Your task to perform on an android device: turn off notifications in google photos Image 0: 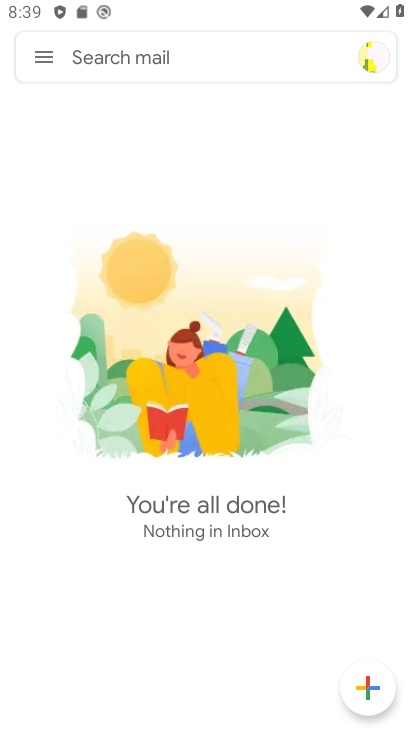
Step 0: press home button
Your task to perform on an android device: turn off notifications in google photos Image 1: 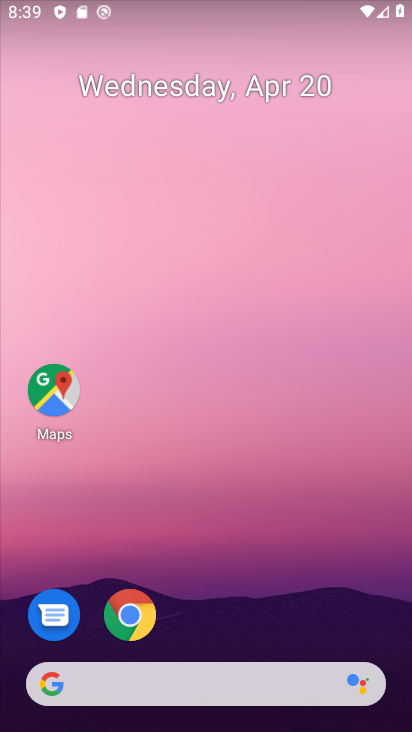
Step 1: drag from (254, 576) to (279, 1)
Your task to perform on an android device: turn off notifications in google photos Image 2: 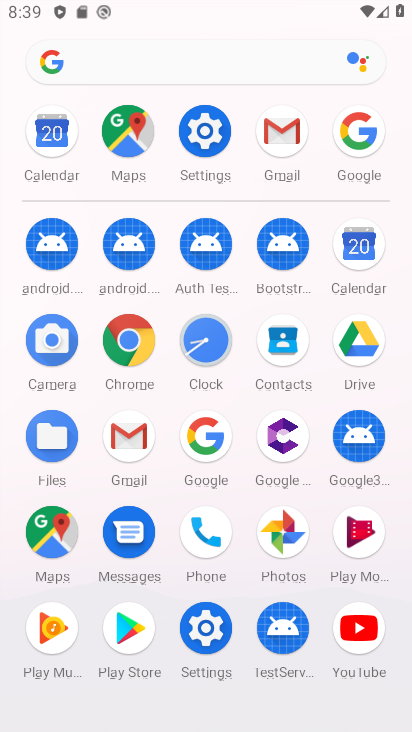
Step 2: click (284, 532)
Your task to perform on an android device: turn off notifications in google photos Image 3: 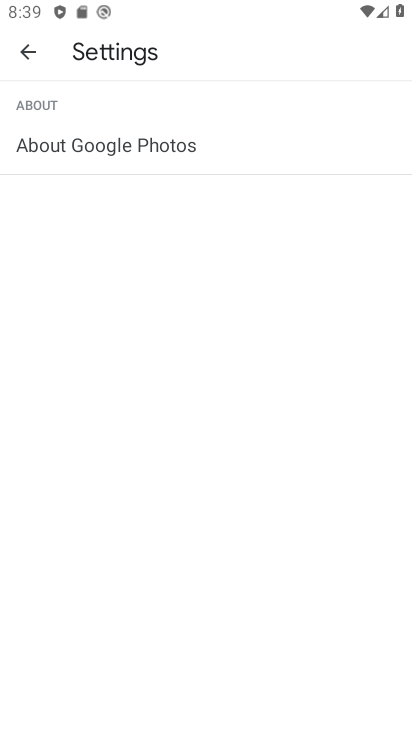
Step 3: press back button
Your task to perform on an android device: turn off notifications in google photos Image 4: 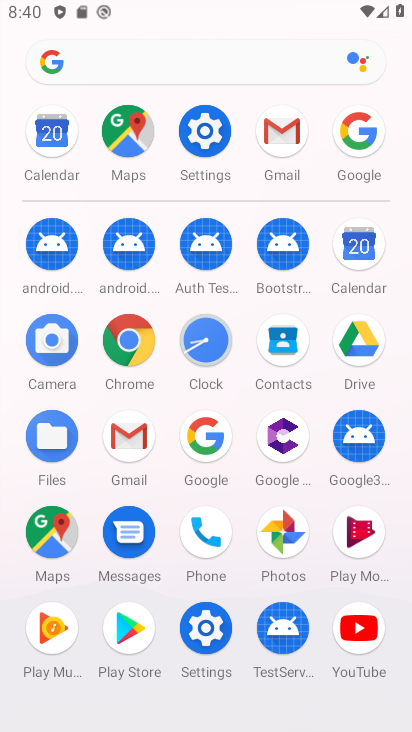
Step 4: click (284, 530)
Your task to perform on an android device: turn off notifications in google photos Image 5: 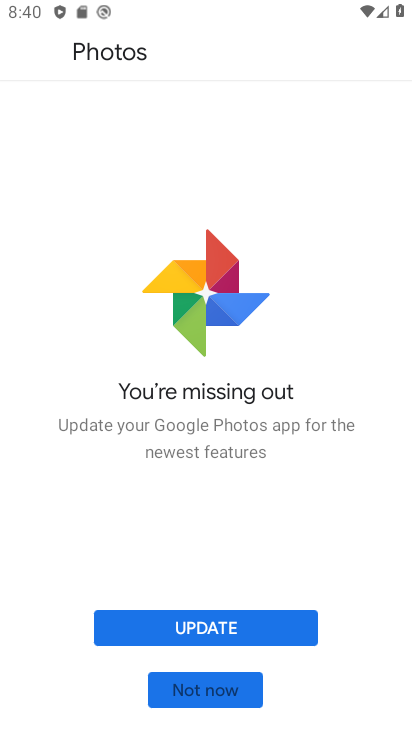
Step 5: click (185, 694)
Your task to perform on an android device: turn off notifications in google photos Image 6: 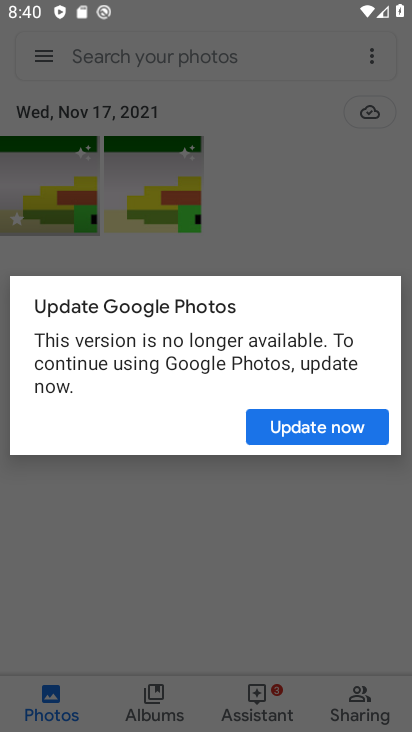
Step 6: click (302, 435)
Your task to perform on an android device: turn off notifications in google photos Image 7: 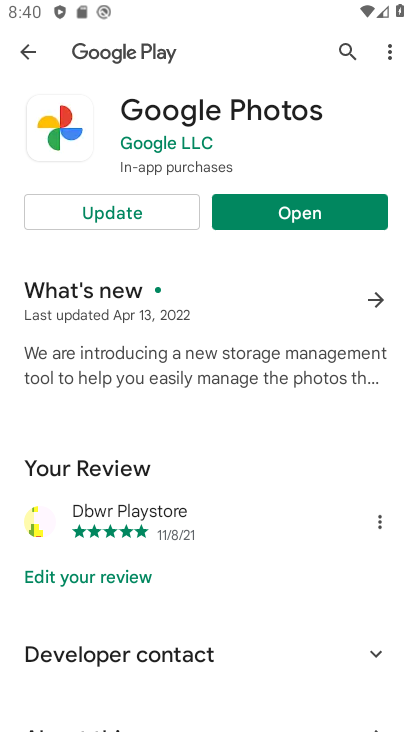
Step 7: click (260, 213)
Your task to perform on an android device: turn off notifications in google photos Image 8: 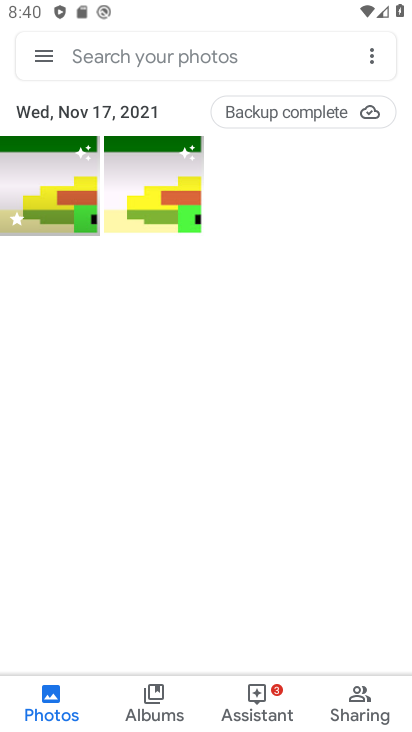
Step 8: click (37, 56)
Your task to perform on an android device: turn off notifications in google photos Image 9: 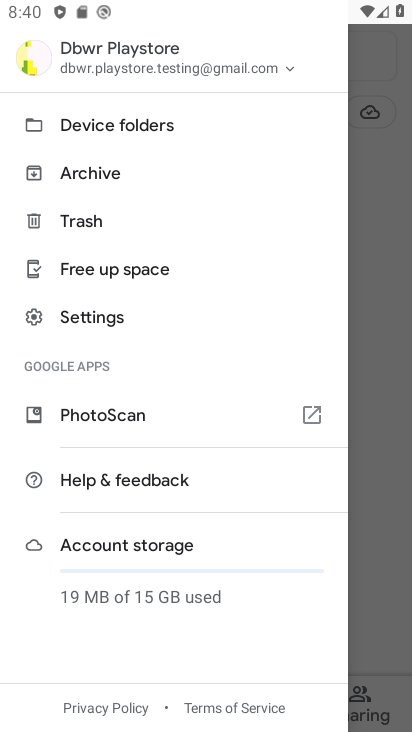
Step 9: click (93, 322)
Your task to perform on an android device: turn off notifications in google photos Image 10: 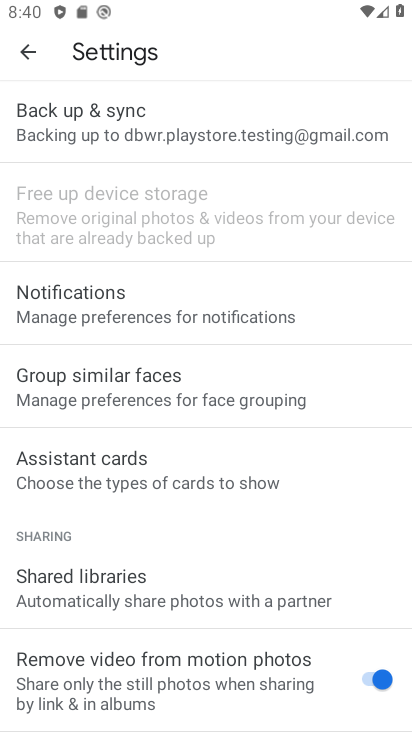
Step 10: click (93, 315)
Your task to perform on an android device: turn off notifications in google photos Image 11: 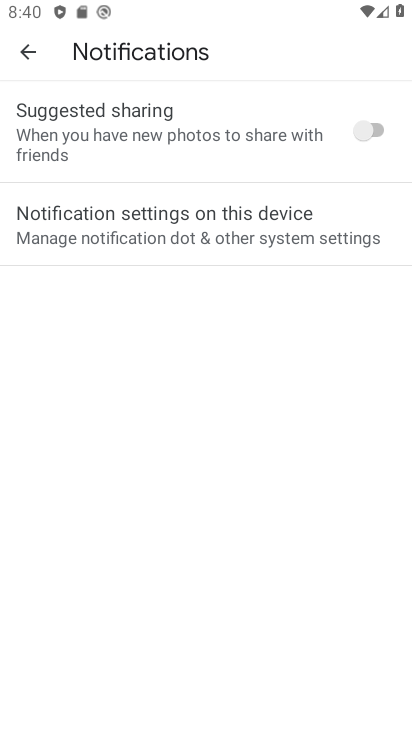
Step 11: click (143, 218)
Your task to perform on an android device: turn off notifications in google photos Image 12: 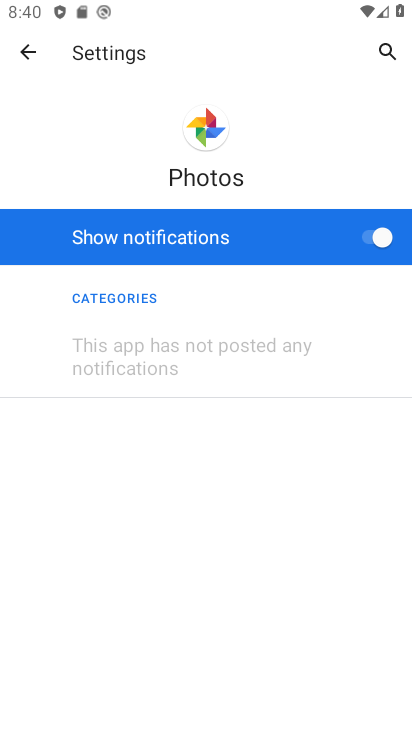
Step 12: click (380, 245)
Your task to perform on an android device: turn off notifications in google photos Image 13: 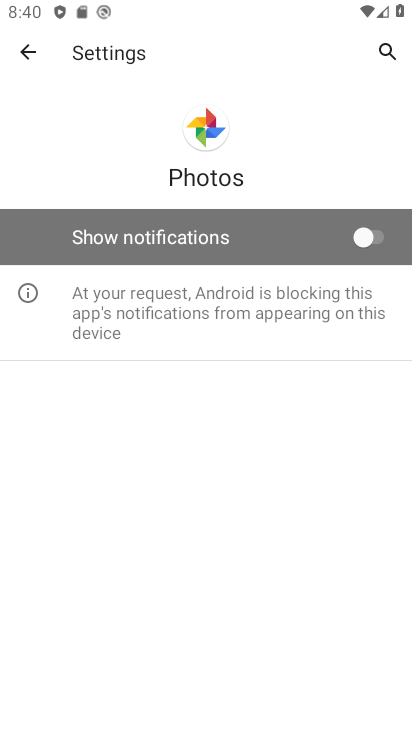
Step 13: task complete